Your task to perform on an android device: change alarm snooze length Image 0: 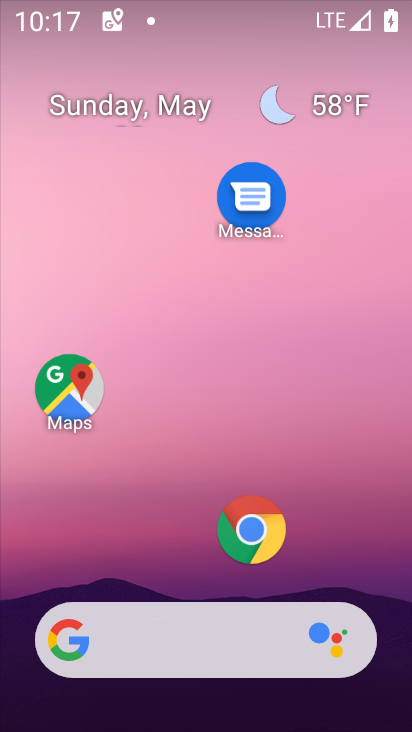
Step 0: drag from (199, 553) to (278, 85)
Your task to perform on an android device: change alarm snooze length Image 1: 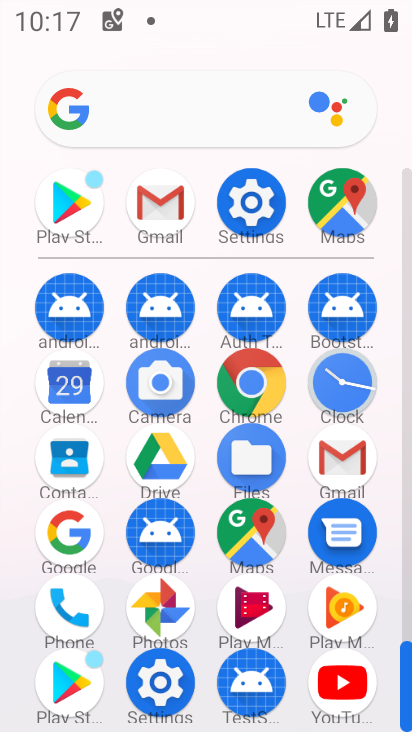
Step 1: click (325, 400)
Your task to perform on an android device: change alarm snooze length Image 2: 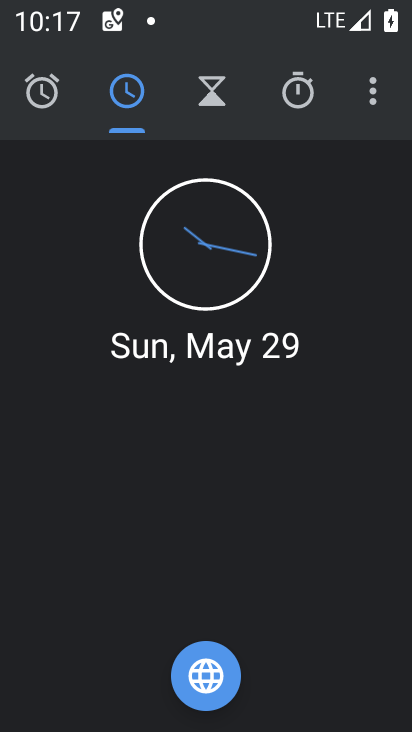
Step 2: click (368, 102)
Your task to perform on an android device: change alarm snooze length Image 3: 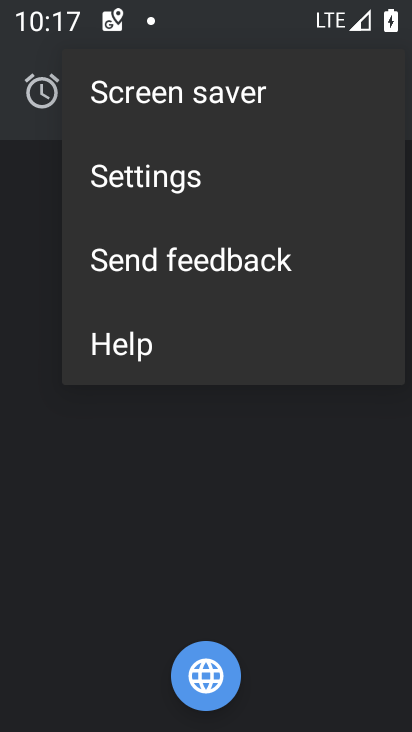
Step 3: click (174, 185)
Your task to perform on an android device: change alarm snooze length Image 4: 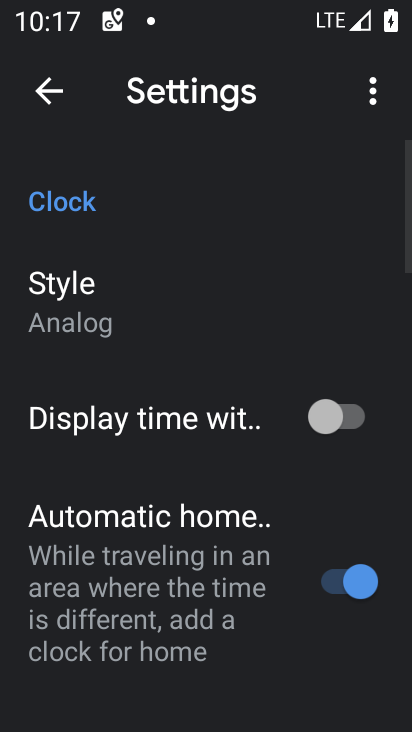
Step 4: drag from (132, 481) to (154, 337)
Your task to perform on an android device: change alarm snooze length Image 5: 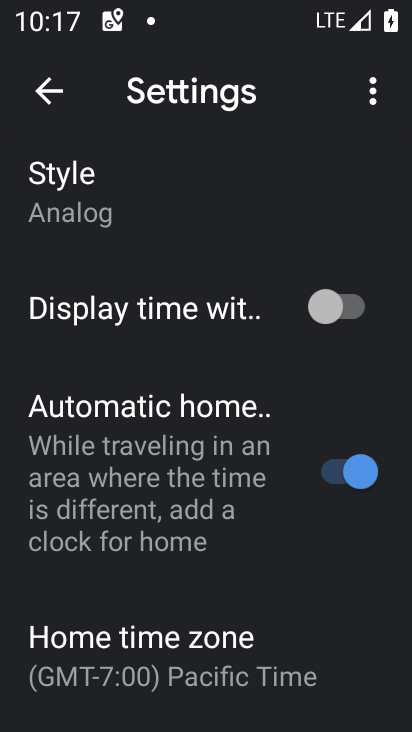
Step 5: drag from (199, 398) to (281, 37)
Your task to perform on an android device: change alarm snooze length Image 6: 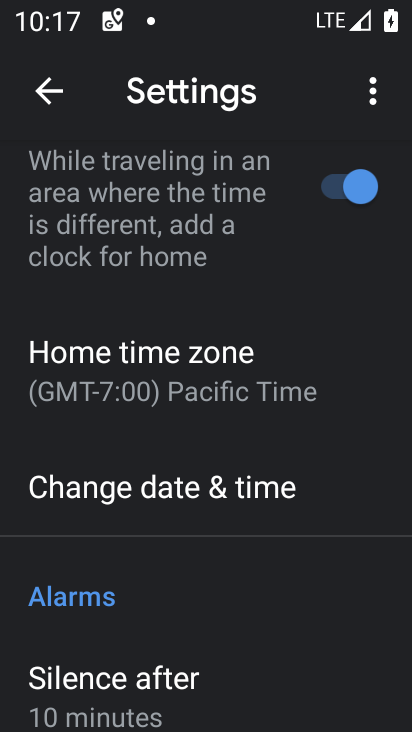
Step 6: drag from (220, 598) to (296, 224)
Your task to perform on an android device: change alarm snooze length Image 7: 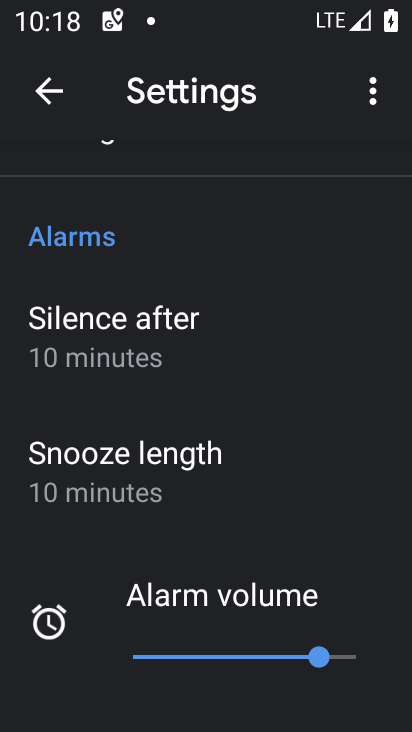
Step 7: drag from (164, 512) to (211, 187)
Your task to perform on an android device: change alarm snooze length Image 8: 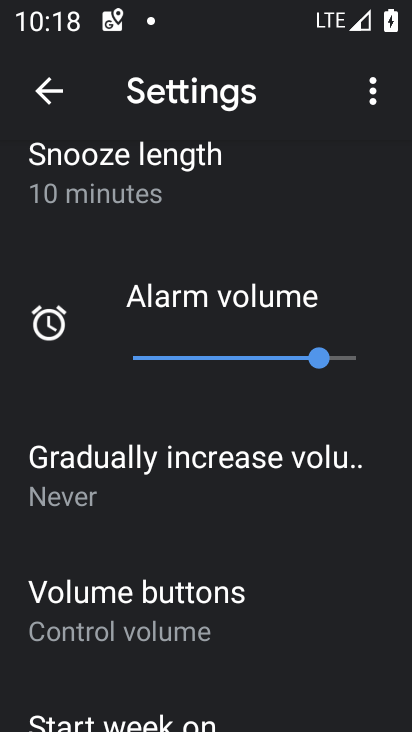
Step 8: click (159, 201)
Your task to perform on an android device: change alarm snooze length Image 9: 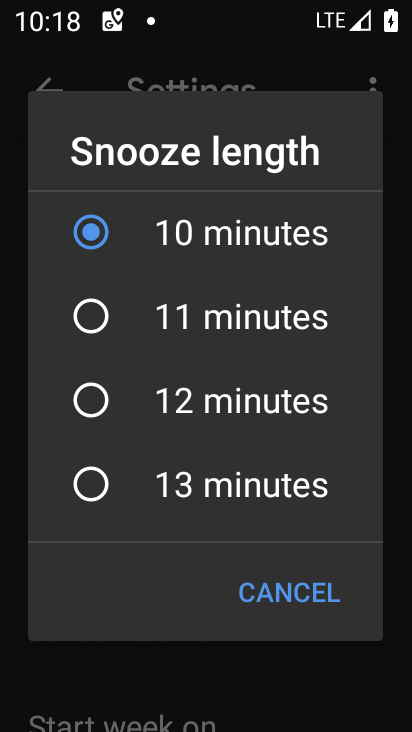
Step 9: click (119, 404)
Your task to perform on an android device: change alarm snooze length Image 10: 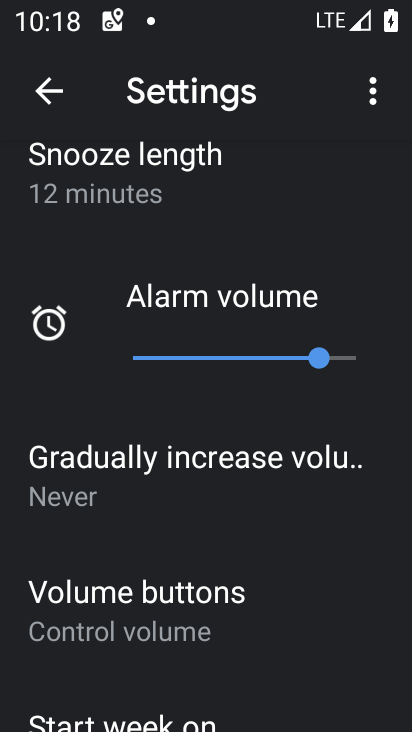
Step 10: task complete